Your task to perform on an android device: Search for hotels in Chicago Image 0: 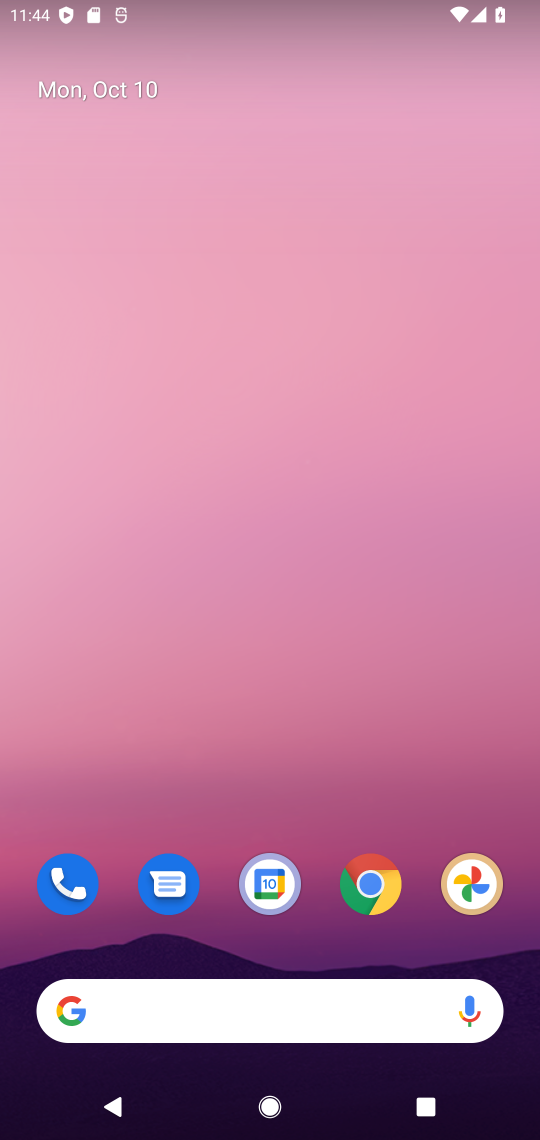
Step 0: click (365, 885)
Your task to perform on an android device: Search for hotels in Chicago Image 1: 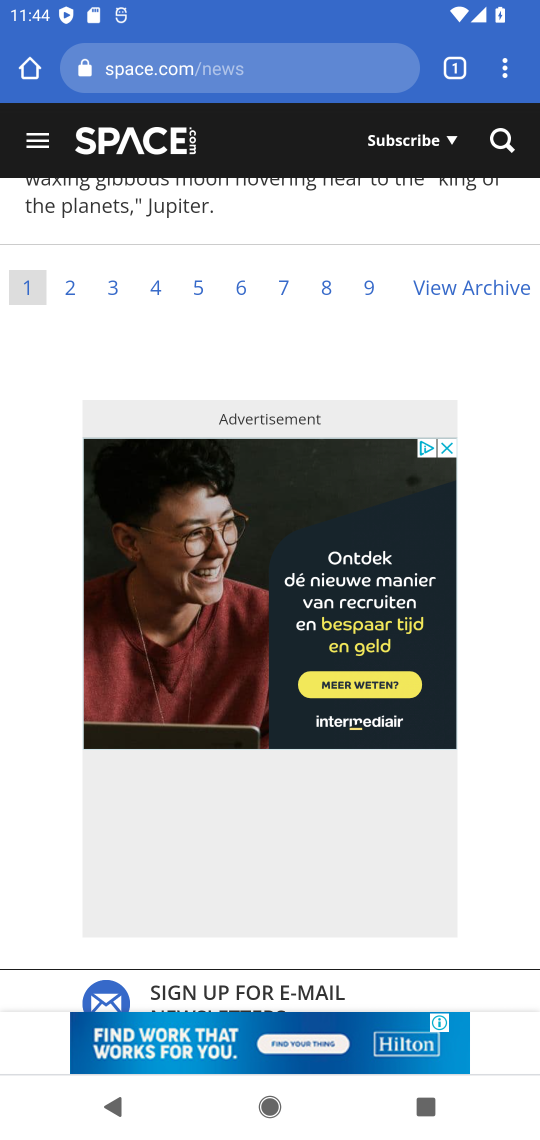
Step 1: click (252, 77)
Your task to perform on an android device: Search for hotels in Chicago Image 2: 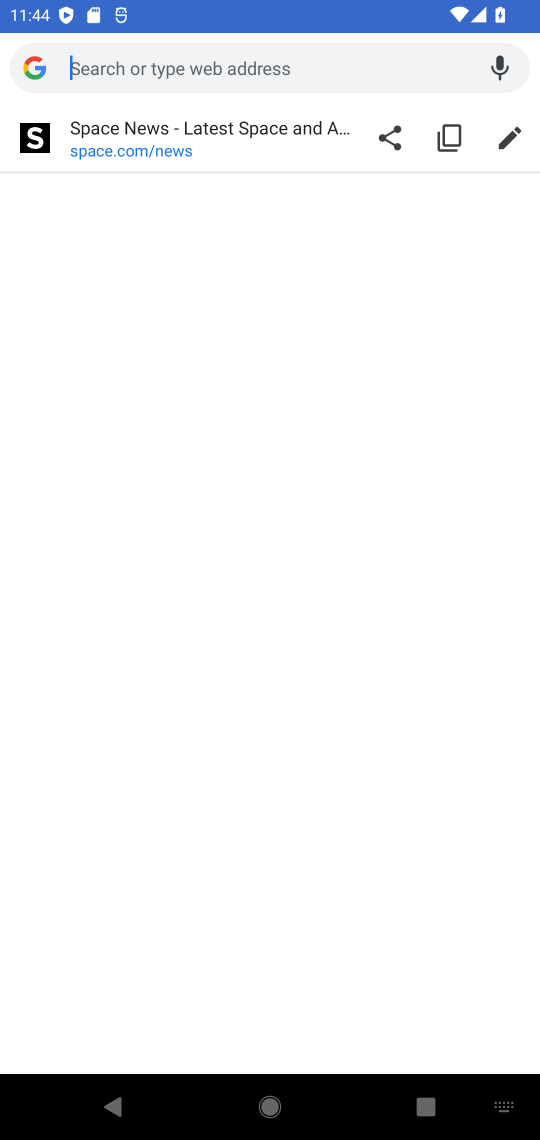
Step 2: type "hotels in Chicago"
Your task to perform on an android device: Search for hotels in Chicago Image 3: 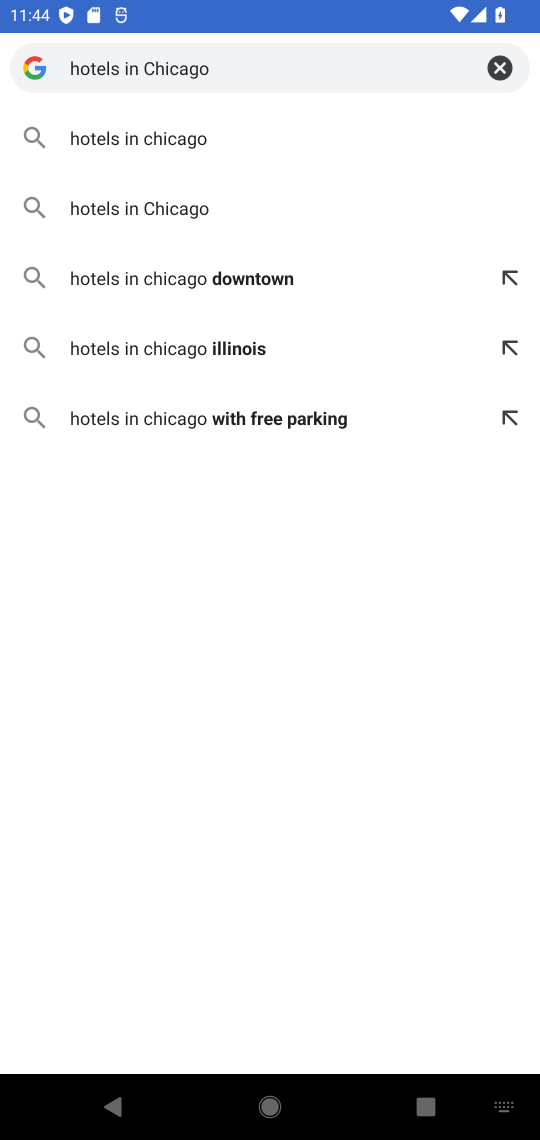
Step 3: press enter
Your task to perform on an android device: Search for hotels in Chicago Image 4: 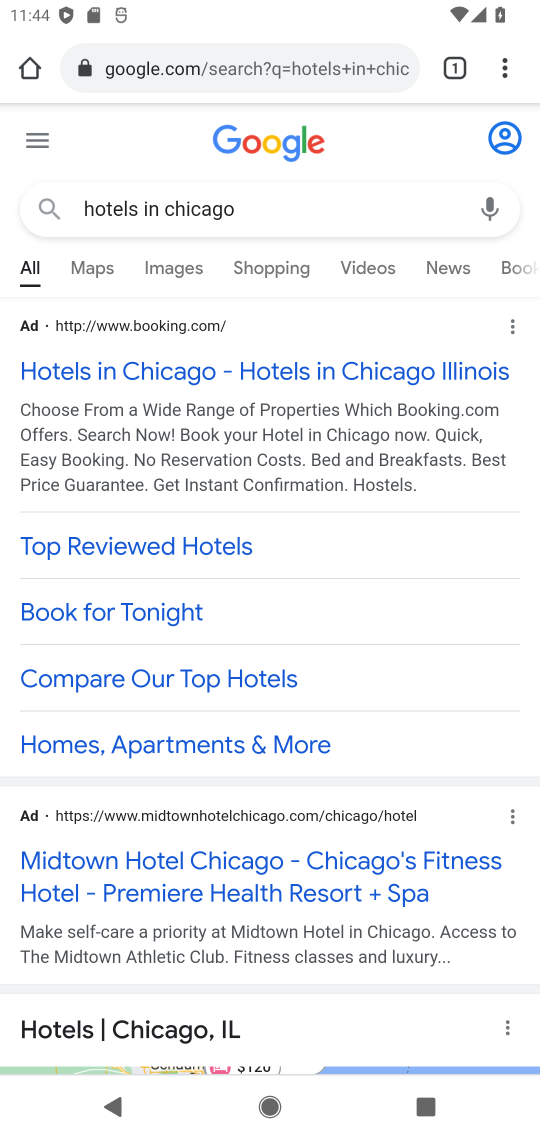
Step 4: click (252, 375)
Your task to perform on an android device: Search for hotels in Chicago Image 5: 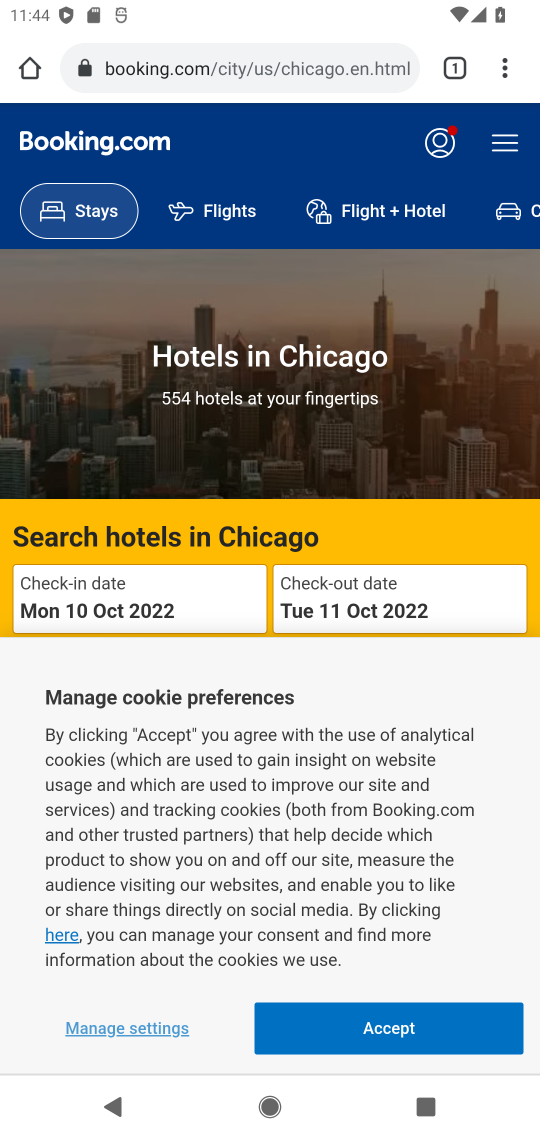
Step 5: drag from (352, 942) to (372, 736)
Your task to perform on an android device: Search for hotels in Chicago Image 6: 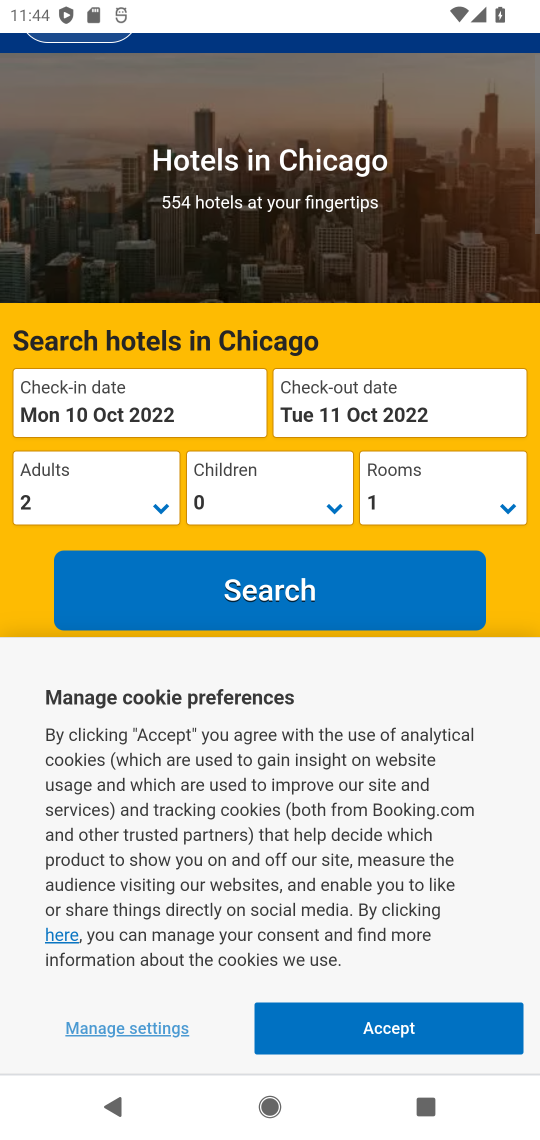
Step 6: click (406, 1028)
Your task to perform on an android device: Search for hotels in Chicago Image 7: 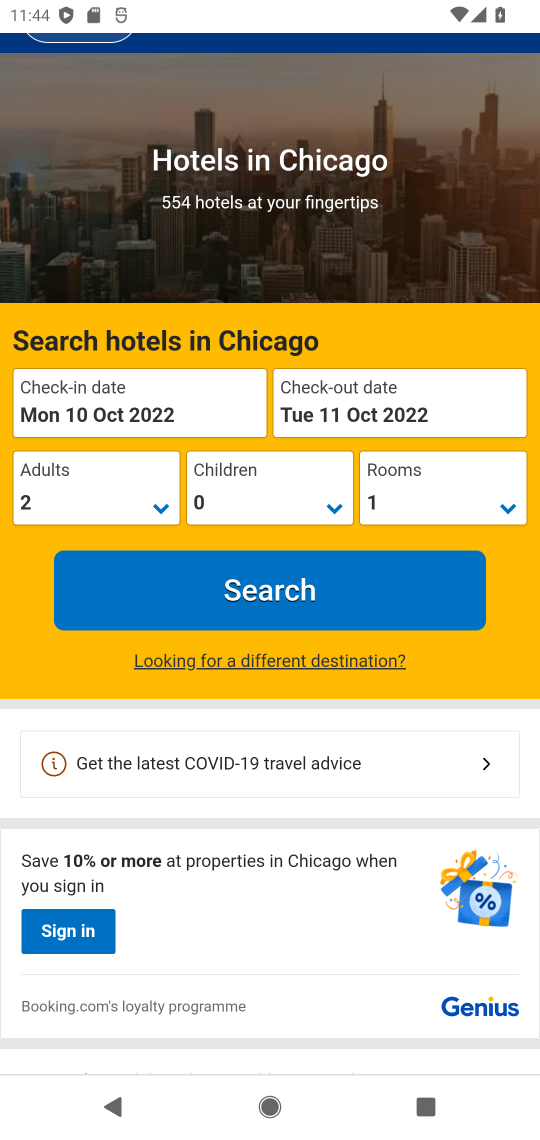
Step 7: drag from (393, 895) to (398, 367)
Your task to perform on an android device: Search for hotels in Chicago Image 8: 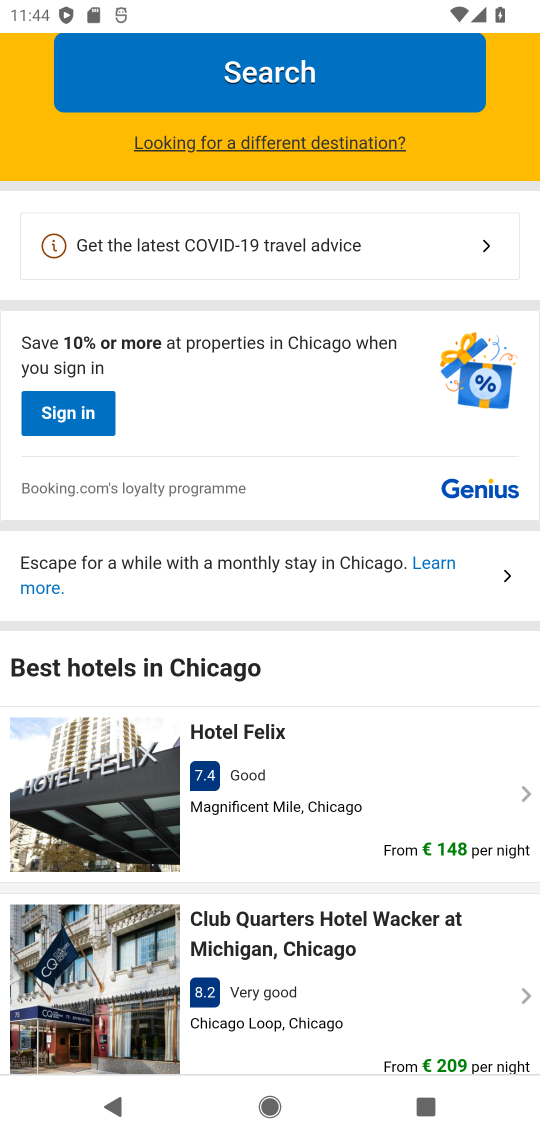
Step 8: drag from (308, 744) to (353, 370)
Your task to perform on an android device: Search for hotels in Chicago Image 9: 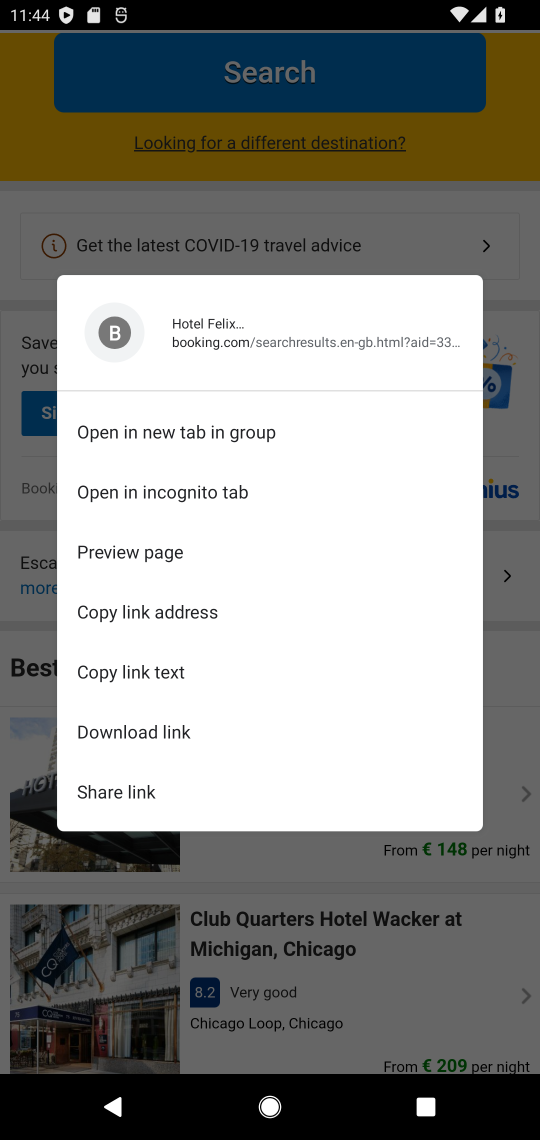
Step 9: click (341, 1011)
Your task to perform on an android device: Search for hotels in Chicago Image 10: 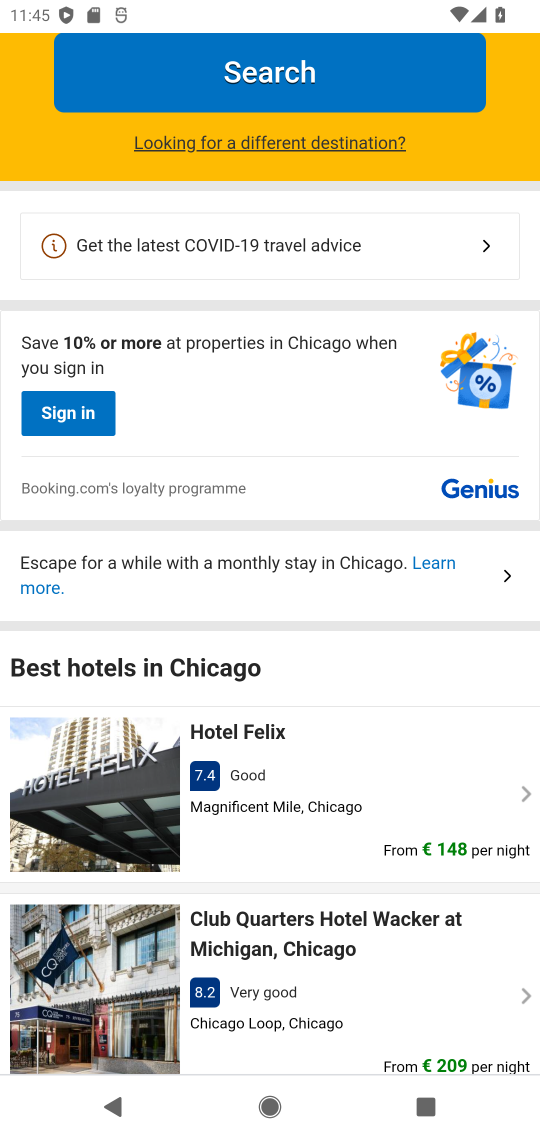
Step 10: task complete